Your task to perform on an android device: Clear the cart on newegg. Search for jbl flip 4 on newegg, select the first entry, add it to the cart, then select checkout. Image 0: 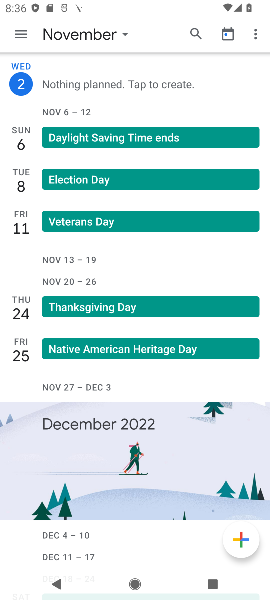
Step 0: press home button
Your task to perform on an android device: Clear the cart on newegg. Search for jbl flip 4 on newegg, select the first entry, add it to the cart, then select checkout. Image 1: 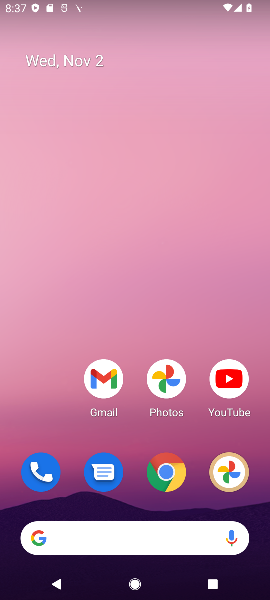
Step 1: click (170, 468)
Your task to perform on an android device: Clear the cart on newegg. Search for jbl flip 4 on newegg, select the first entry, add it to the cart, then select checkout. Image 2: 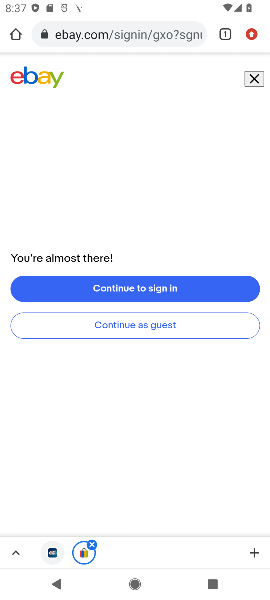
Step 2: click (130, 32)
Your task to perform on an android device: Clear the cart on newegg. Search for jbl flip 4 on newegg, select the first entry, add it to the cart, then select checkout. Image 3: 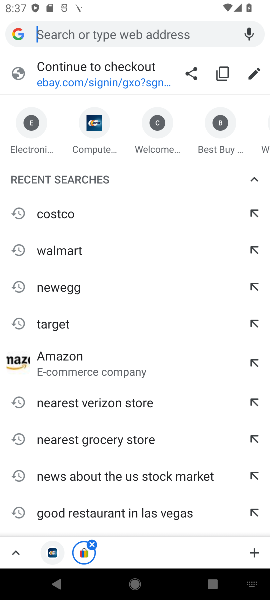
Step 3: click (80, 289)
Your task to perform on an android device: Clear the cart on newegg. Search for jbl flip 4 on newegg, select the first entry, add it to the cart, then select checkout. Image 4: 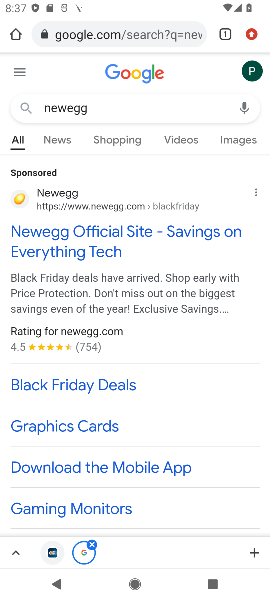
Step 4: click (88, 232)
Your task to perform on an android device: Clear the cart on newegg. Search for jbl flip 4 on newegg, select the first entry, add it to the cart, then select checkout. Image 5: 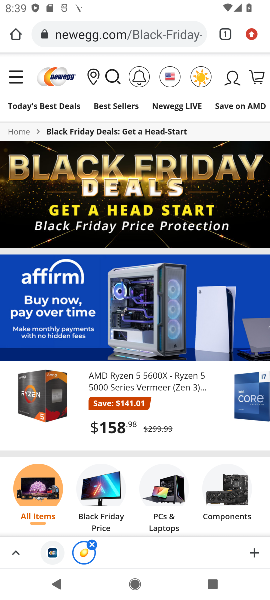
Step 5: click (106, 76)
Your task to perform on an android device: Clear the cart on newegg. Search for jbl flip 4 on newegg, select the first entry, add it to the cart, then select checkout. Image 6: 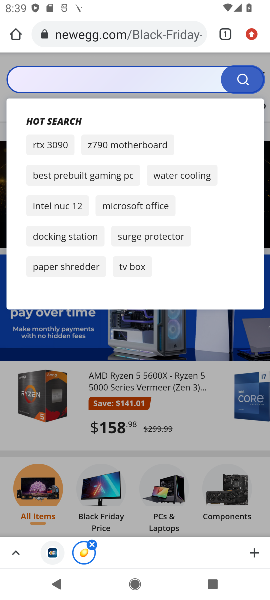
Step 6: click (164, 80)
Your task to perform on an android device: Clear the cart on newegg. Search for jbl flip 4 on newegg, select the first entry, add it to the cart, then select checkout. Image 7: 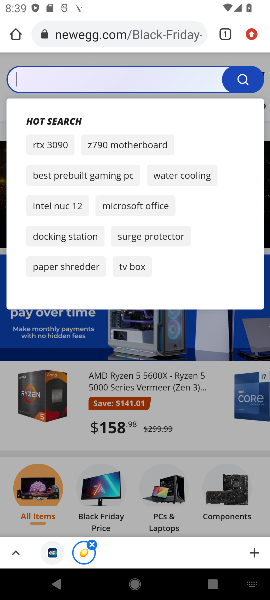
Step 7: type "jbl flip 4"
Your task to perform on an android device: Clear the cart on newegg. Search for jbl flip 4 on newegg, select the first entry, add it to the cart, then select checkout. Image 8: 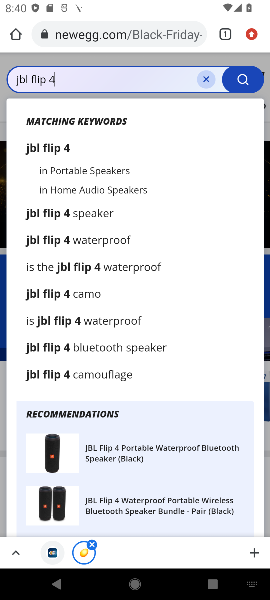
Step 8: click (66, 149)
Your task to perform on an android device: Clear the cart on newegg. Search for jbl flip 4 on newegg, select the first entry, add it to the cart, then select checkout. Image 9: 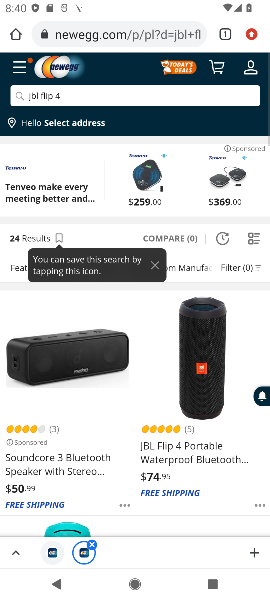
Step 9: click (78, 368)
Your task to perform on an android device: Clear the cart on newegg. Search for jbl flip 4 on newegg, select the first entry, add it to the cart, then select checkout. Image 10: 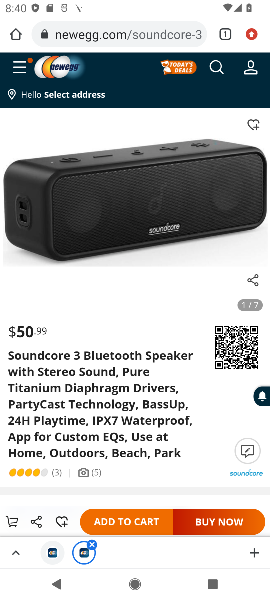
Step 10: click (115, 520)
Your task to perform on an android device: Clear the cart on newegg. Search for jbl flip 4 on newegg, select the first entry, add it to the cart, then select checkout. Image 11: 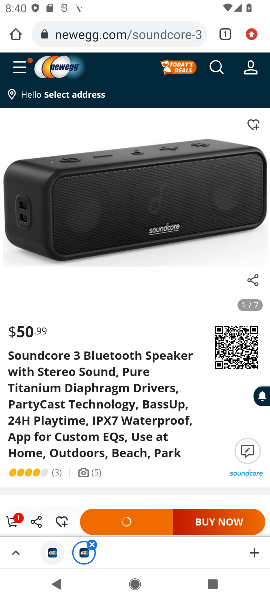
Step 11: task complete